Your task to perform on an android device: toggle sleep mode Image 0: 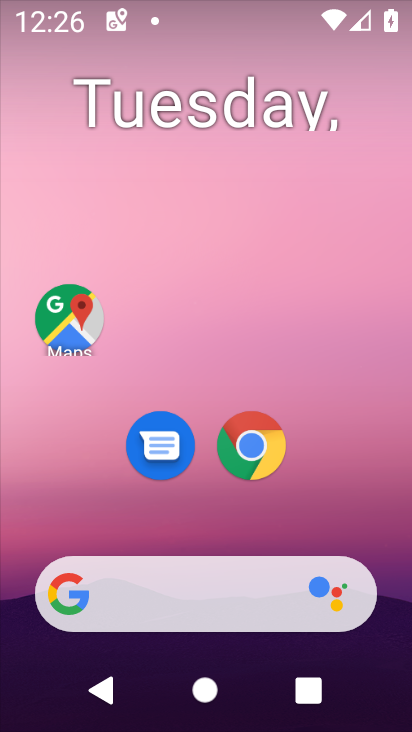
Step 0: drag from (385, 525) to (379, 202)
Your task to perform on an android device: toggle sleep mode Image 1: 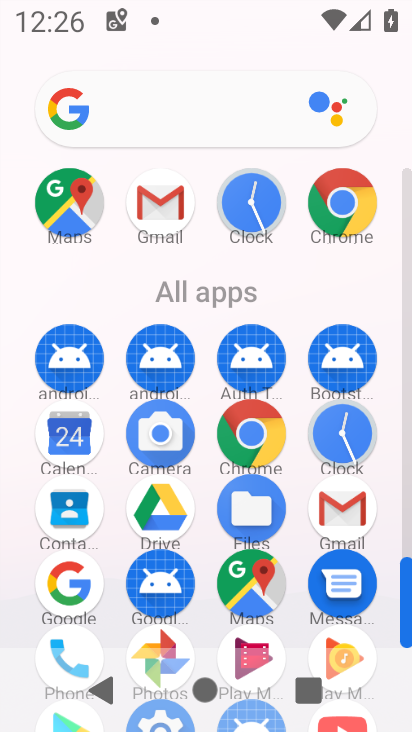
Step 1: drag from (391, 525) to (393, 316)
Your task to perform on an android device: toggle sleep mode Image 2: 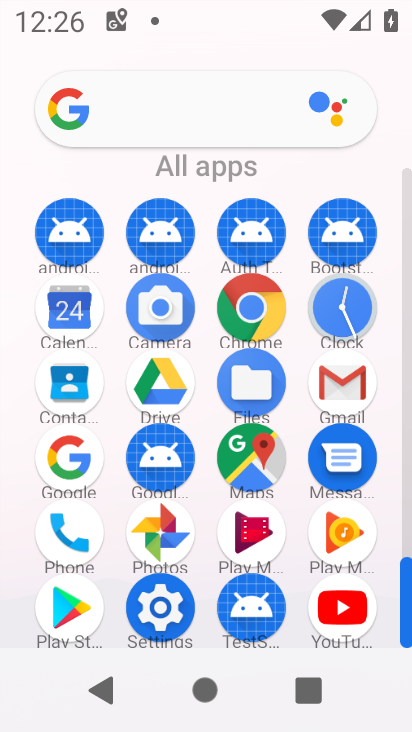
Step 2: click (162, 628)
Your task to perform on an android device: toggle sleep mode Image 3: 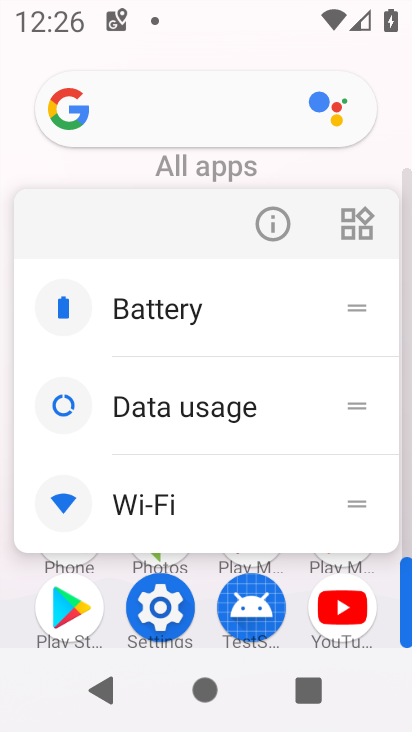
Step 3: click (163, 628)
Your task to perform on an android device: toggle sleep mode Image 4: 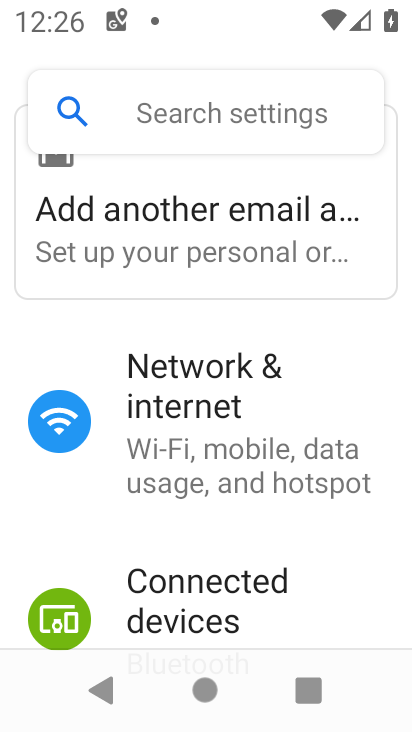
Step 4: drag from (371, 608) to (379, 519)
Your task to perform on an android device: toggle sleep mode Image 5: 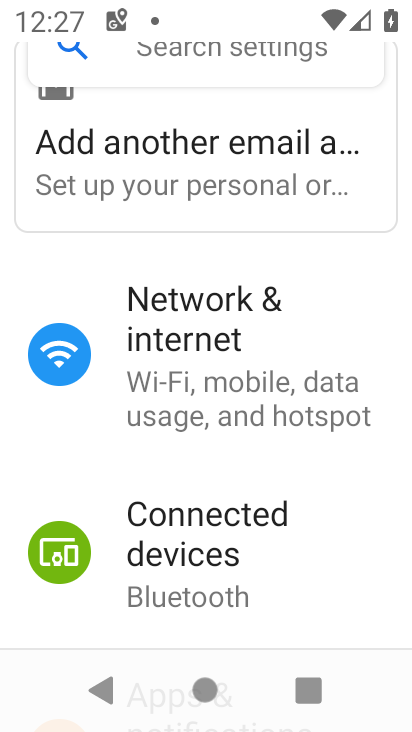
Step 5: drag from (368, 609) to (359, 502)
Your task to perform on an android device: toggle sleep mode Image 6: 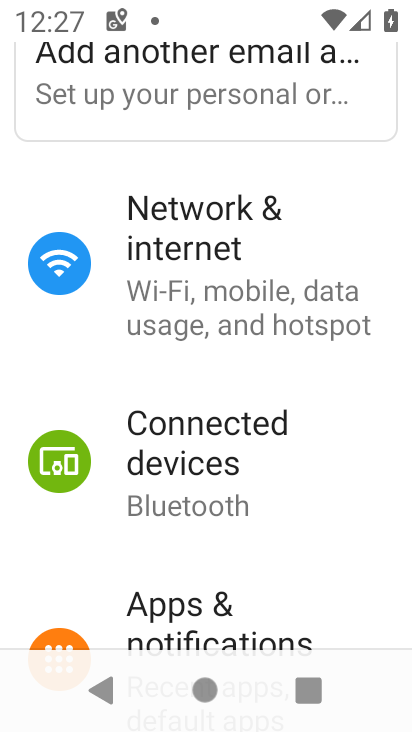
Step 6: drag from (363, 612) to (363, 498)
Your task to perform on an android device: toggle sleep mode Image 7: 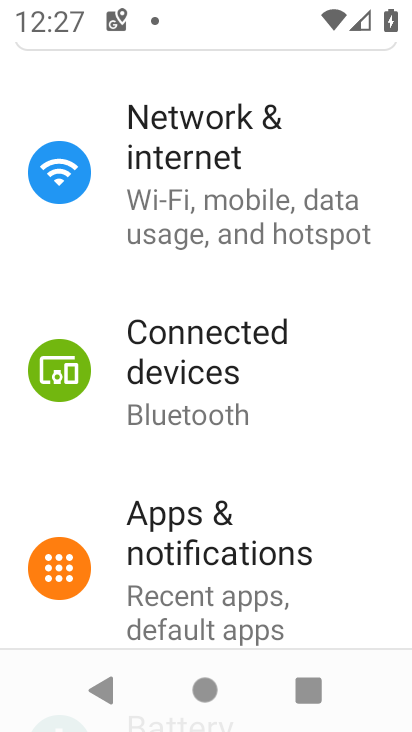
Step 7: drag from (371, 600) to (364, 474)
Your task to perform on an android device: toggle sleep mode Image 8: 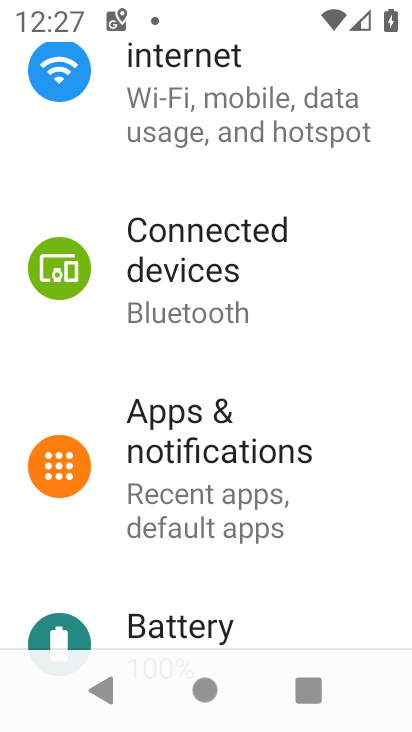
Step 8: drag from (363, 569) to (355, 459)
Your task to perform on an android device: toggle sleep mode Image 9: 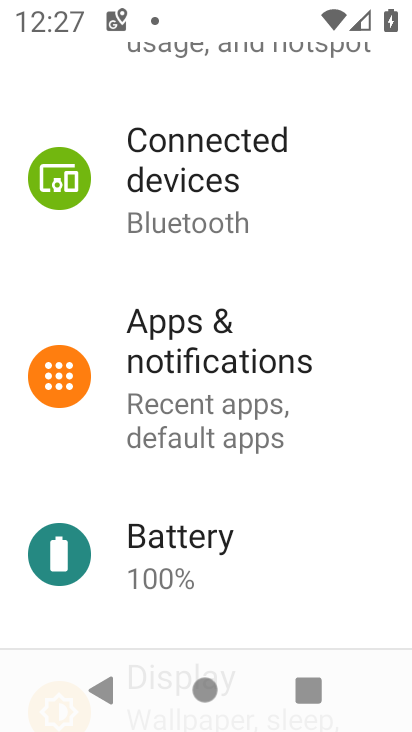
Step 9: drag from (354, 609) to (365, 451)
Your task to perform on an android device: toggle sleep mode Image 10: 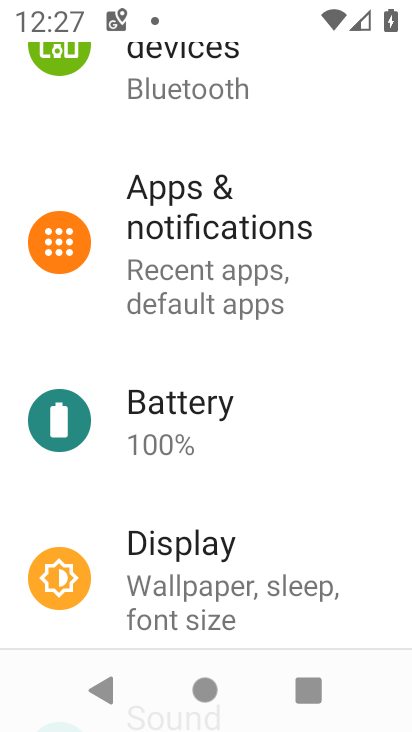
Step 10: drag from (367, 624) to (375, 477)
Your task to perform on an android device: toggle sleep mode Image 11: 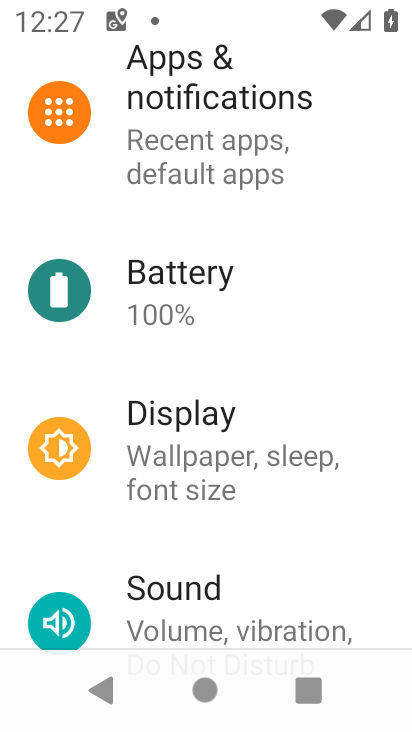
Step 11: click (246, 464)
Your task to perform on an android device: toggle sleep mode Image 12: 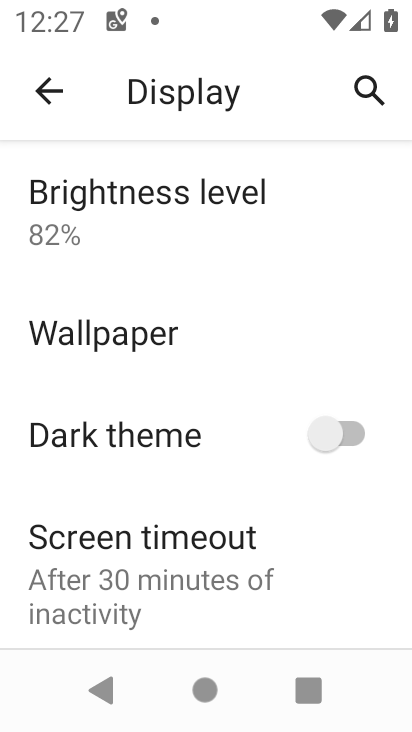
Step 12: task complete